Your task to perform on an android device: change text size in settings app Image 0: 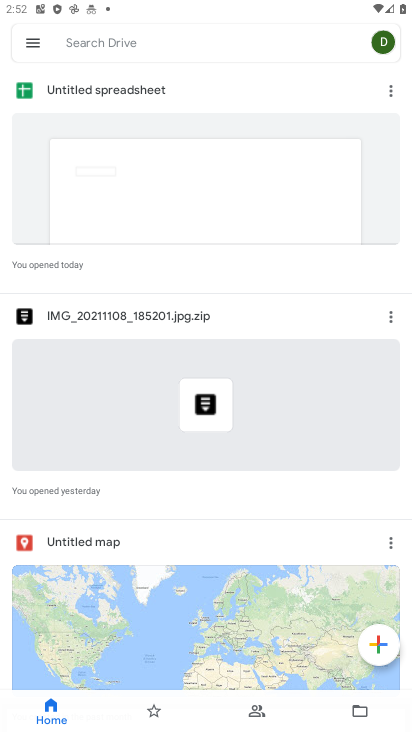
Step 0: press home button
Your task to perform on an android device: change text size in settings app Image 1: 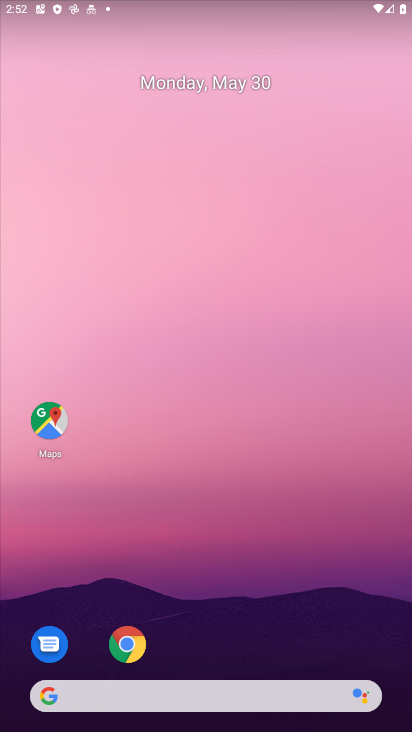
Step 1: drag from (223, 632) to (214, 128)
Your task to perform on an android device: change text size in settings app Image 2: 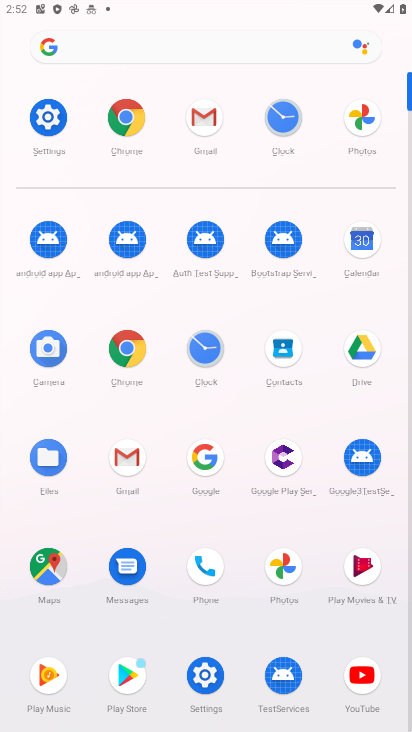
Step 2: click (64, 147)
Your task to perform on an android device: change text size in settings app Image 3: 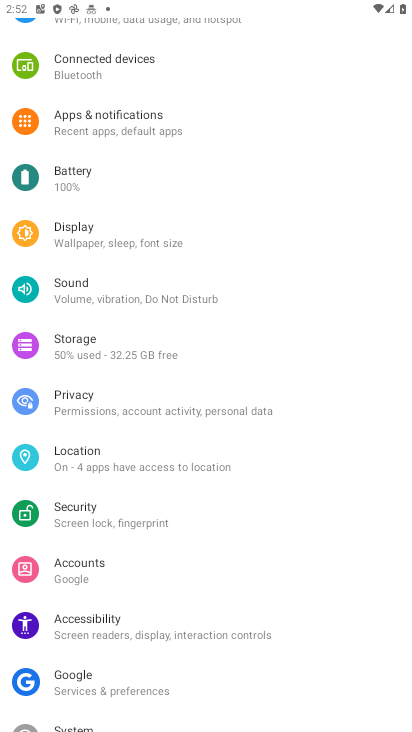
Step 3: task complete